Your task to perform on an android device: open chrome and create a bookmark for the current page Image 0: 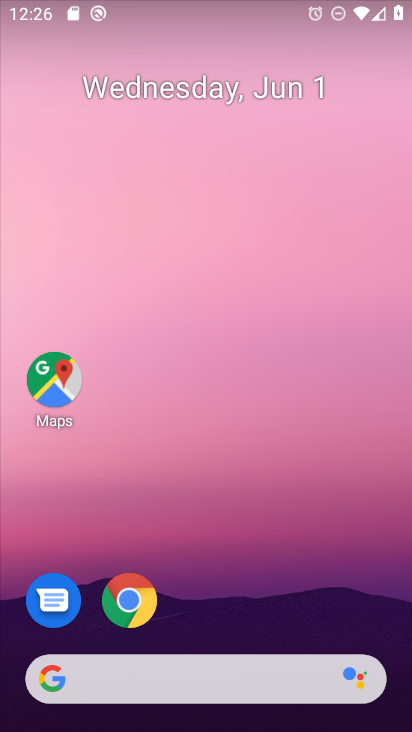
Step 0: click (128, 601)
Your task to perform on an android device: open chrome and create a bookmark for the current page Image 1: 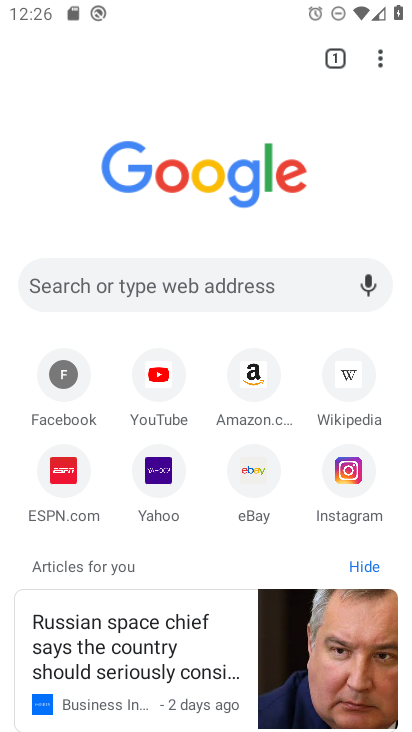
Step 1: click (370, 53)
Your task to perform on an android device: open chrome and create a bookmark for the current page Image 2: 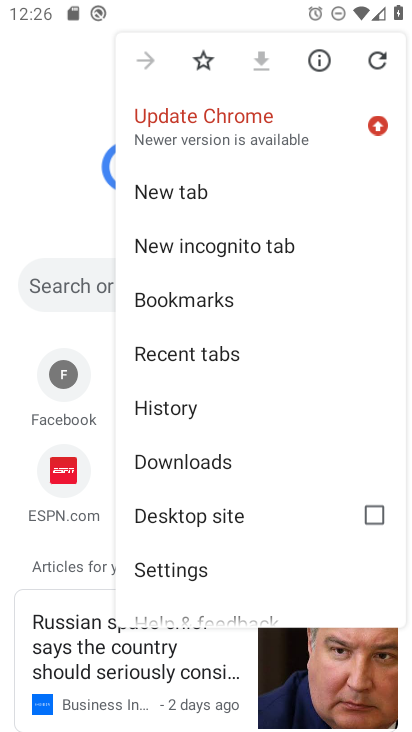
Step 2: click (204, 66)
Your task to perform on an android device: open chrome and create a bookmark for the current page Image 3: 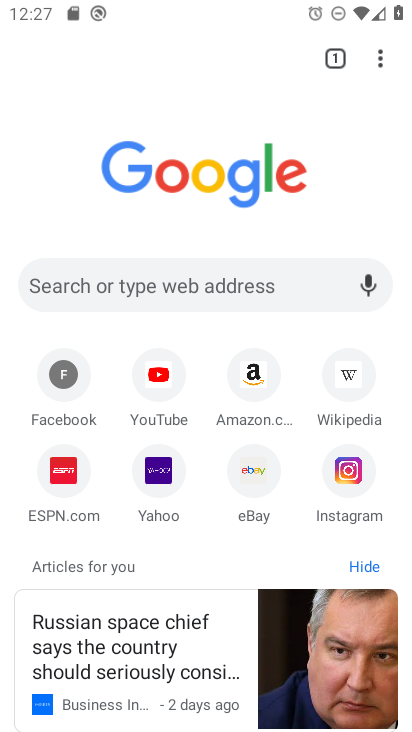
Step 3: task complete